Your task to perform on an android device: turn on bluetooth scan Image 0: 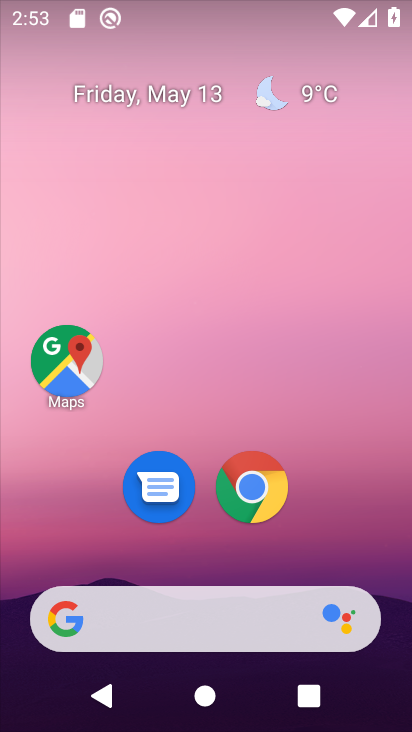
Step 0: drag from (210, 598) to (227, 191)
Your task to perform on an android device: turn on bluetooth scan Image 1: 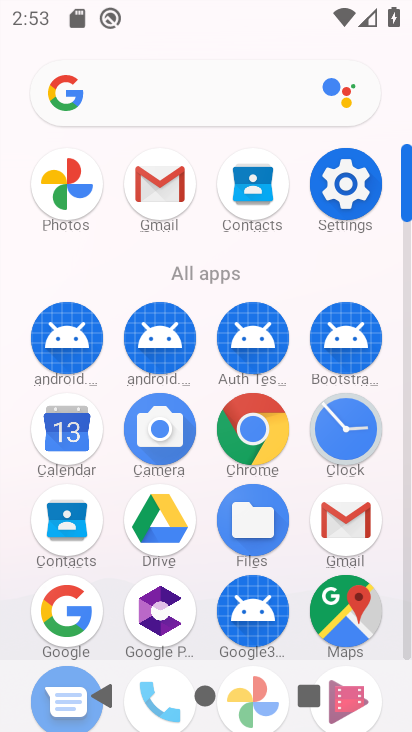
Step 1: click (349, 182)
Your task to perform on an android device: turn on bluetooth scan Image 2: 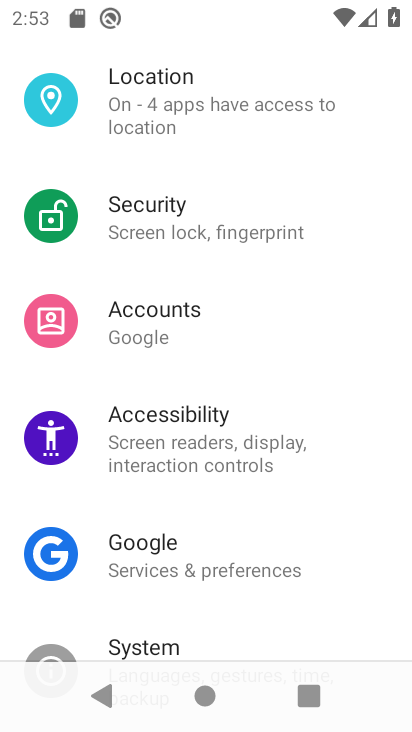
Step 2: click (164, 98)
Your task to perform on an android device: turn on bluetooth scan Image 3: 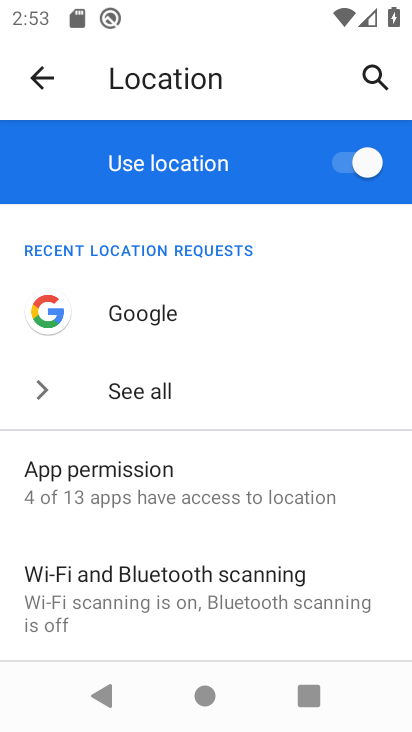
Step 3: click (142, 576)
Your task to perform on an android device: turn on bluetooth scan Image 4: 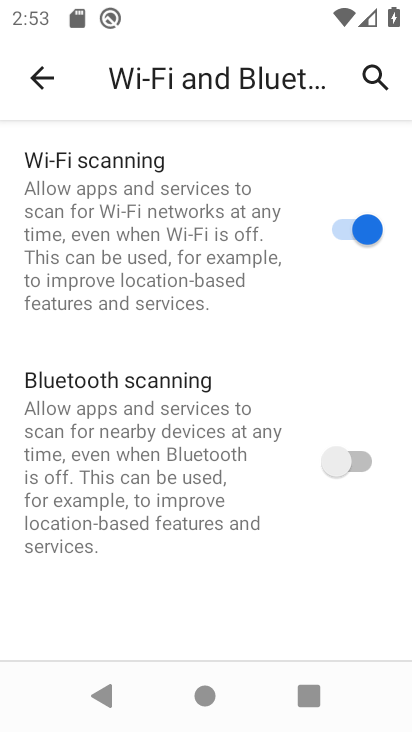
Step 4: click (366, 456)
Your task to perform on an android device: turn on bluetooth scan Image 5: 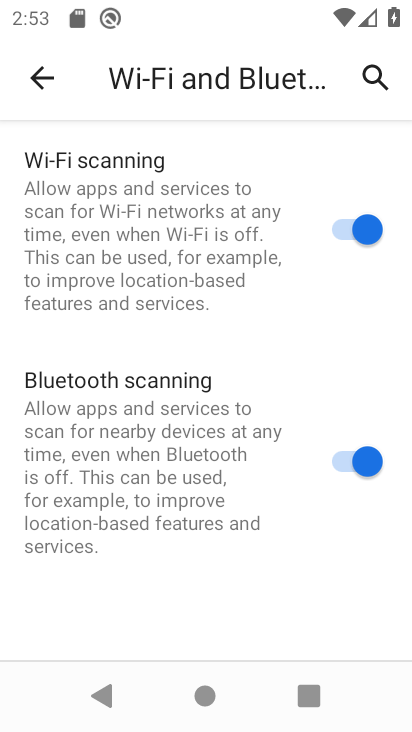
Step 5: task complete